Your task to perform on an android device: turn on notifications settings in the gmail app Image 0: 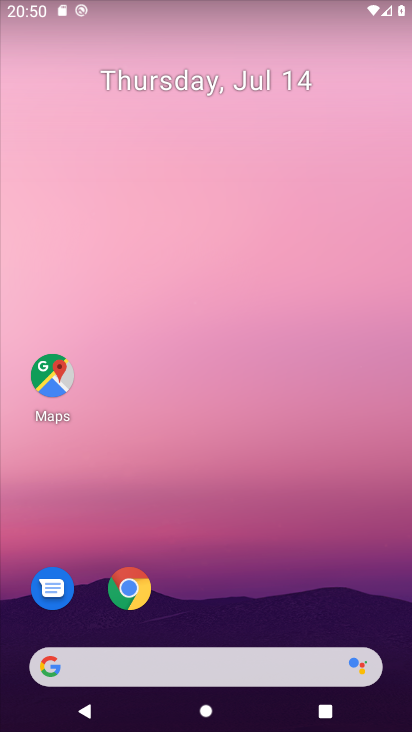
Step 0: drag from (360, 603) to (363, 89)
Your task to perform on an android device: turn on notifications settings in the gmail app Image 1: 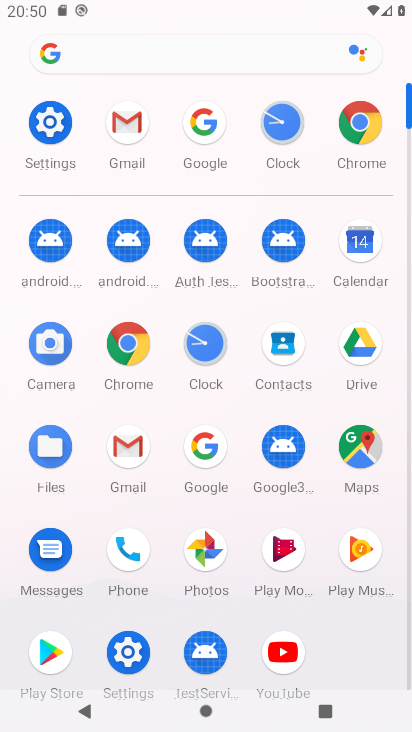
Step 1: click (135, 458)
Your task to perform on an android device: turn on notifications settings in the gmail app Image 2: 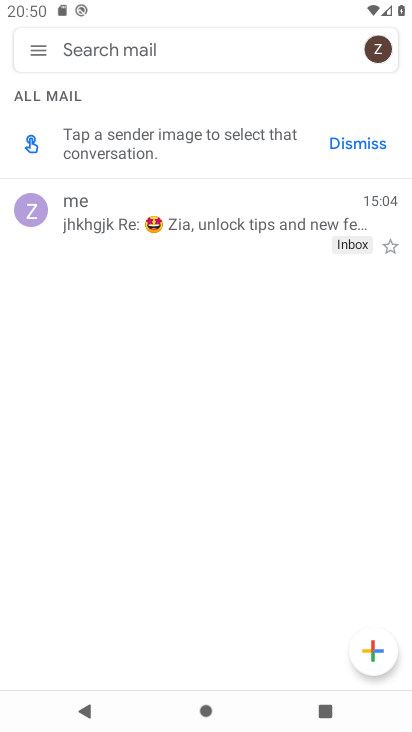
Step 2: click (36, 51)
Your task to perform on an android device: turn on notifications settings in the gmail app Image 3: 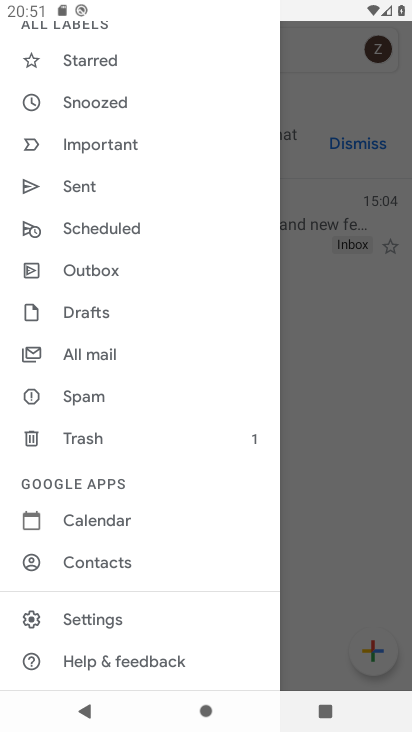
Step 3: drag from (211, 515) to (208, 424)
Your task to perform on an android device: turn on notifications settings in the gmail app Image 4: 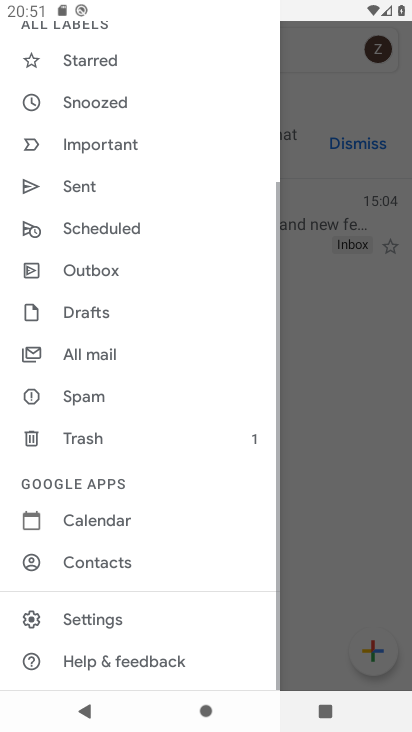
Step 4: click (146, 608)
Your task to perform on an android device: turn on notifications settings in the gmail app Image 5: 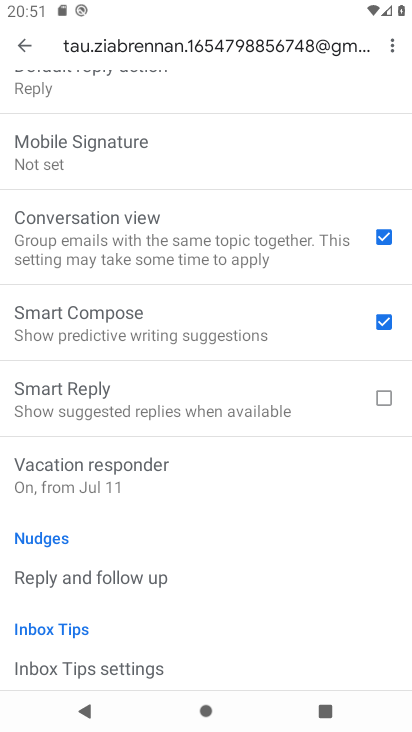
Step 5: drag from (310, 500) to (336, 342)
Your task to perform on an android device: turn on notifications settings in the gmail app Image 6: 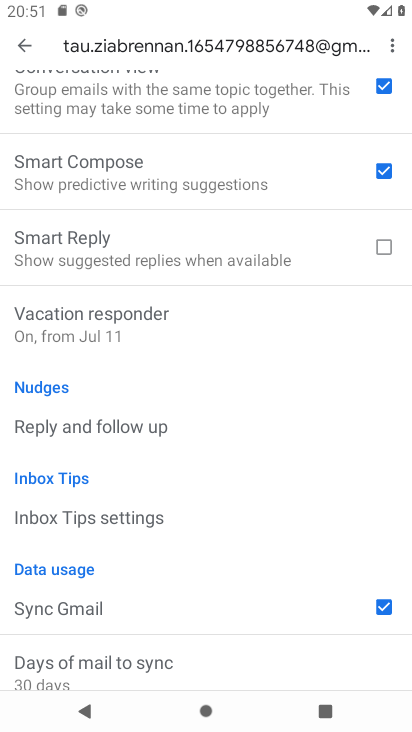
Step 6: drag from (311, 468) to (312, 302)
Your task to perform on an android device: turn on notifications settings in the gmail app Image 7: 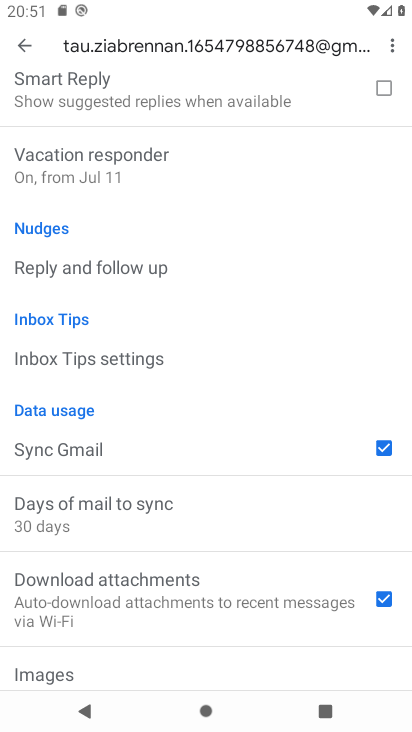
Step 7: drag from (319, 505) to (345, 194)
Your task to perform on an android device: turn on notifications settings in the gmail app Image 8: 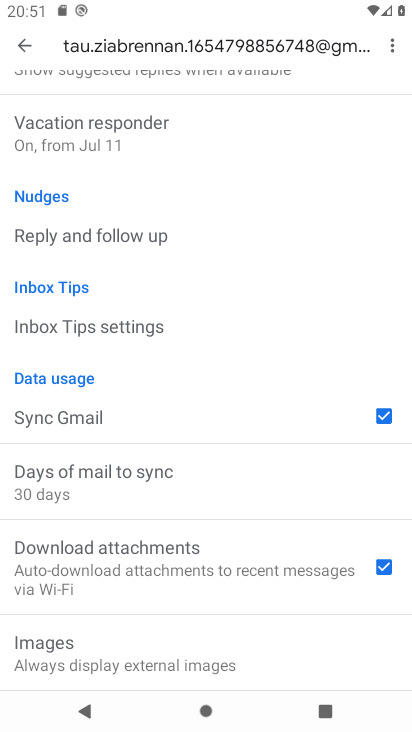
Step 8: drag from (326, 218) to (316, 471)
Your task to perform on an android device: turn on notifications settings in the gmail app Image 9: 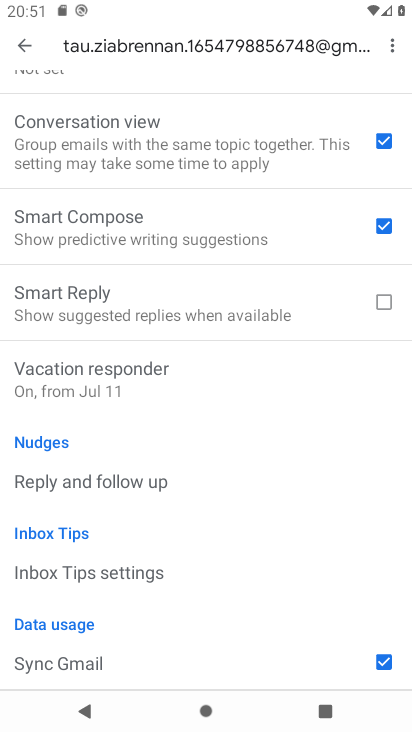
Step 9: drag from (328, 271) to (333, 407)
Your task to perform on an android device: turn on notifications settings in the gmail app Image 10: 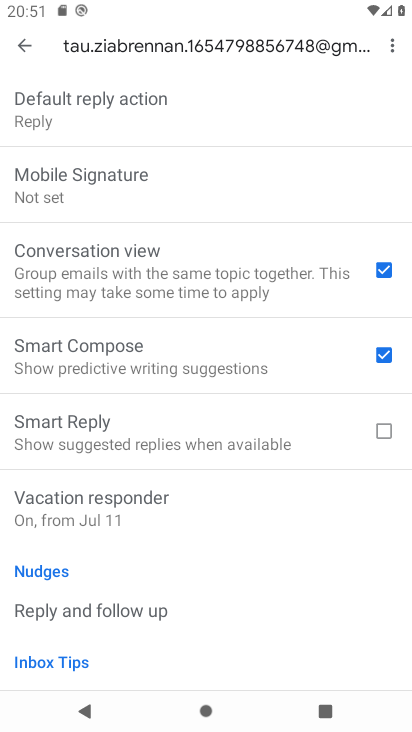
Step 10: drag from (336, 225) to (318, 424)
Your task to perform on an android device: turn on notifications settings in the gmail app Image 11: 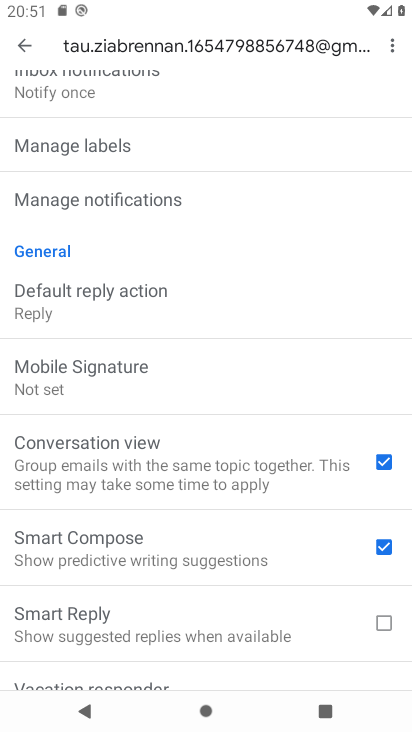
Step 11: drag from (323, 218) to (328, 414)
Your task to perform on an android device: turn on notifications settings in the gmail app Image 12: 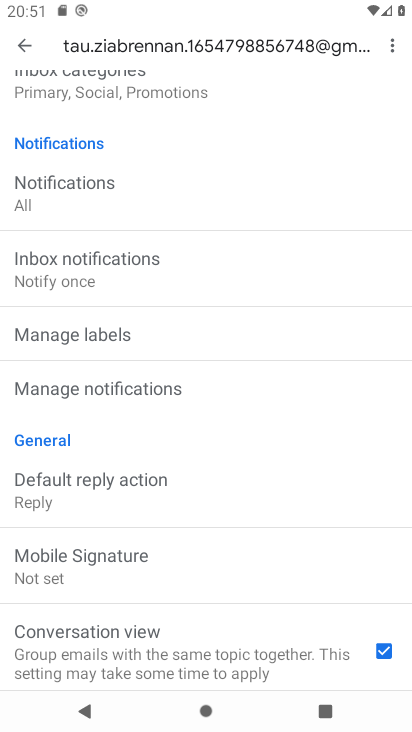
Step 12: click (247, 401)
Your task to perform on an android device: turn on notifications settings in the gmail app Image 13: 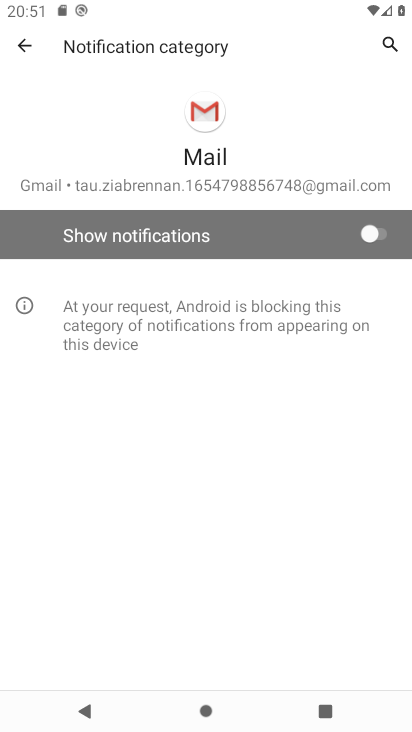
Step 13: click (371, 244)
Your task to perform on an android device: turn on notifications settings in the gmail app Image 14: 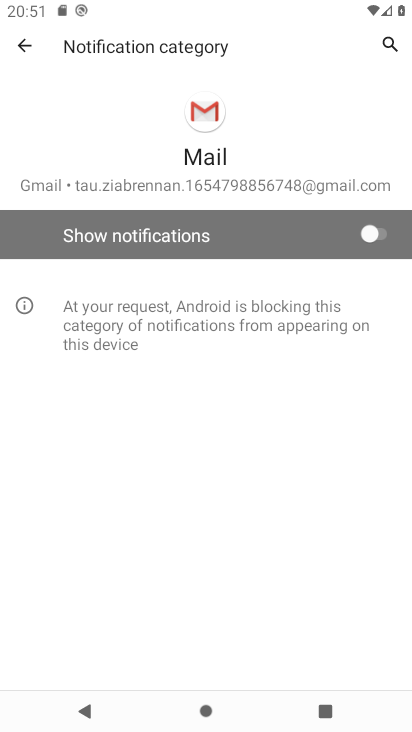
Step 14: click (369, 242)
Your task to perform on an android device: turn on notifications settings in the gmail app Image 15: 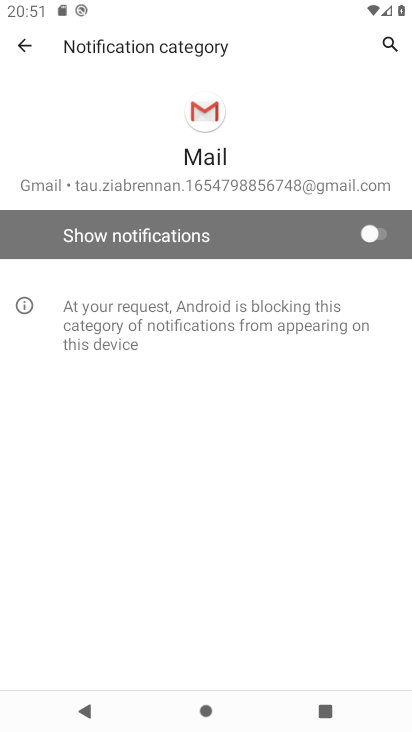
Step 15: task complete